Your task to perform on an android device: Open Google Maps Image 0: 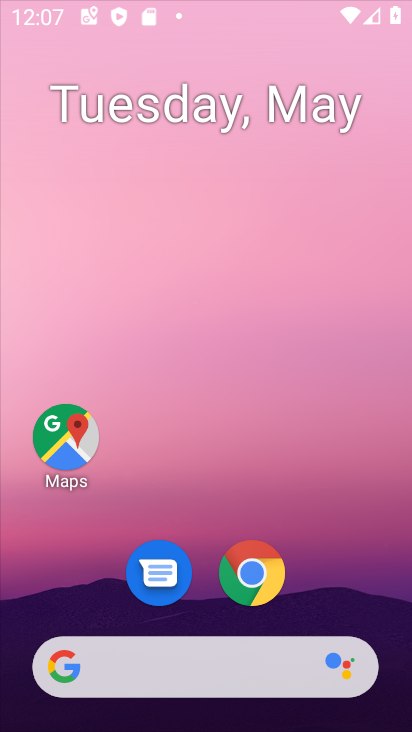
Step 0: drag from (293, 499) to (342, 37)
Your task to perform on an android device: Open Google Maps Image 1: 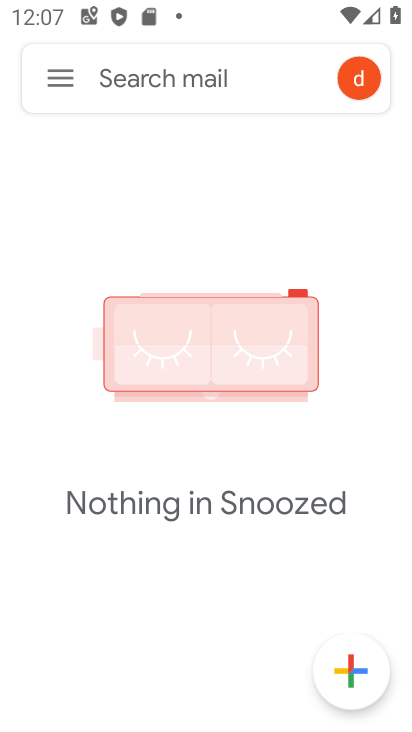
Step 1: press home button
Your task to perform on an android device: Open Google Maps Image 2: 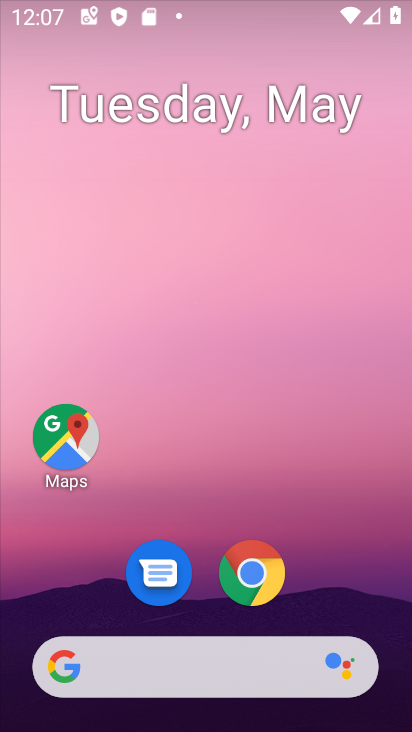
Step 2: drag from (350, 568) to (271, 3)
Your task to perform on an android device: Open Google Maps Image 3: 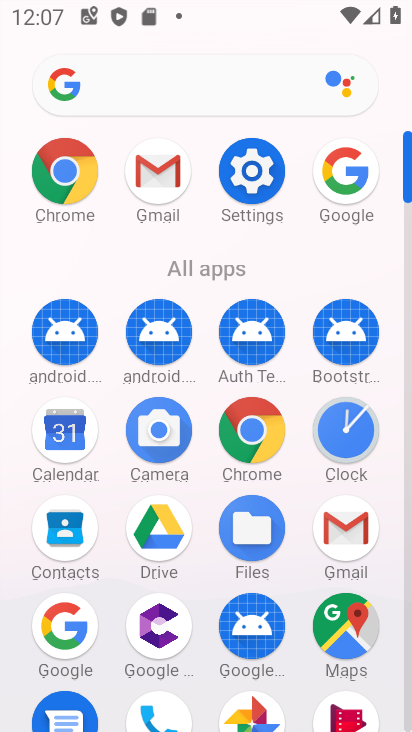
Step 3: click (339, 650)
Your task to perform on an android device: Open Google Maps Image 4: 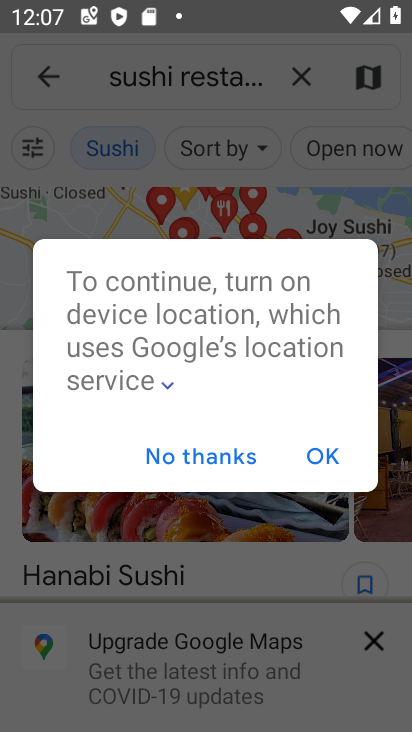
Step 4: click (234, 469)
Your task to perform on an android device: Open Google Maps Image 5: 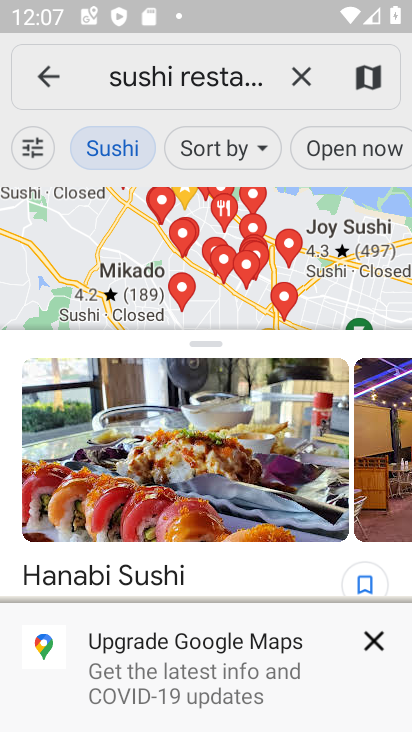
Step 5: task complete